Your task to perform on an android device: Search for vegetarian restaurants on Maps Image 0: 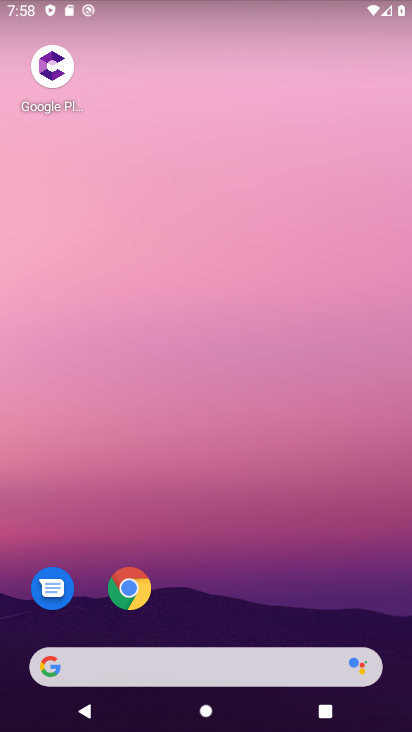
Step 0: drag from (195, 675) to (205, 332)
Your task to perform on an android device: Search for vegetarian restaurants on Maps Image 1: 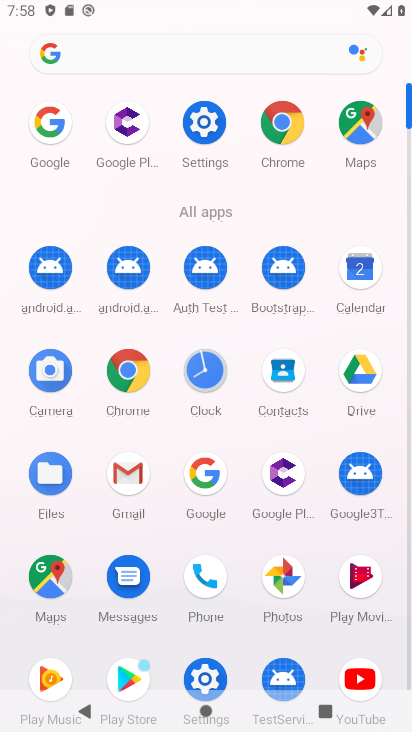
Step 1: click (50, 581)
Your task to perform on an android device: Search for vegetarian restaurants on Maps Image 2: 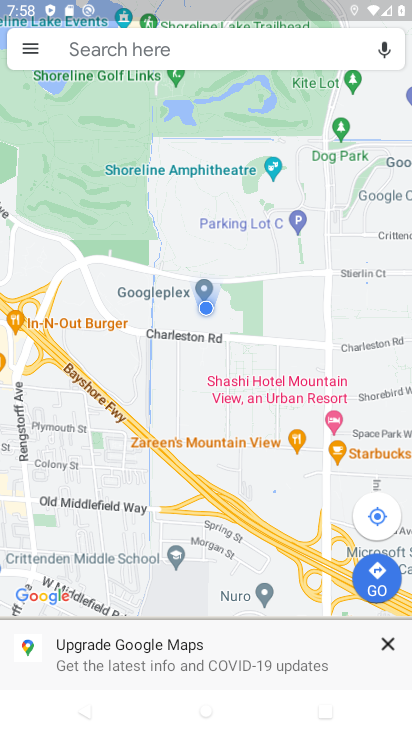
Step 2: click (172, 53)
Your task to perform on an android device: Search for vegetarian restaurants on Maps Image 3: 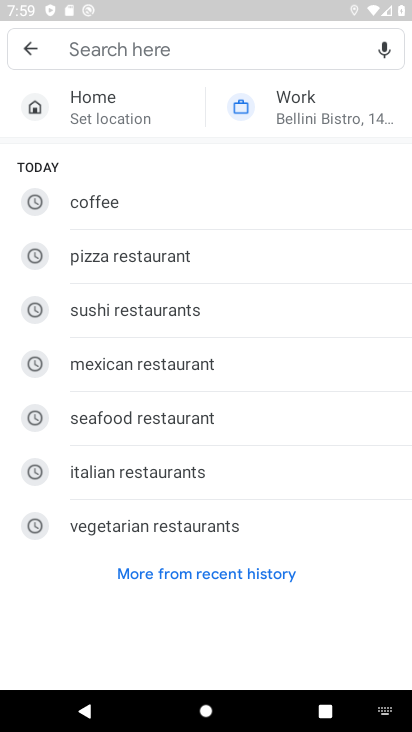
Step 3: click (127, 530)
Your task to perform on an android device: Search for vegetarian restaurants on Maps Image 4: 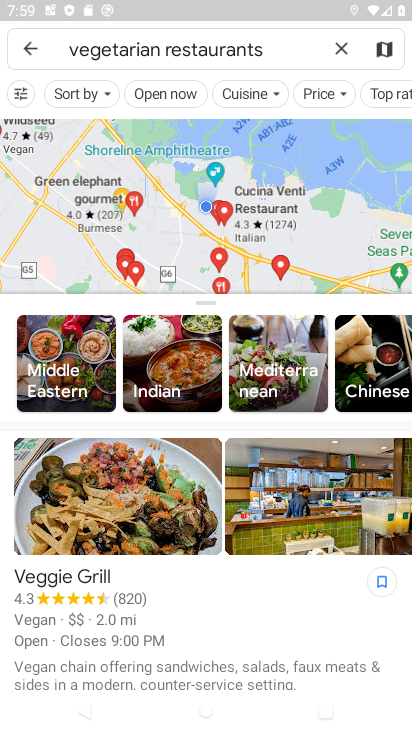
Step 4: task complete